Your task to perform on an android device: turn off wifi Image 0: 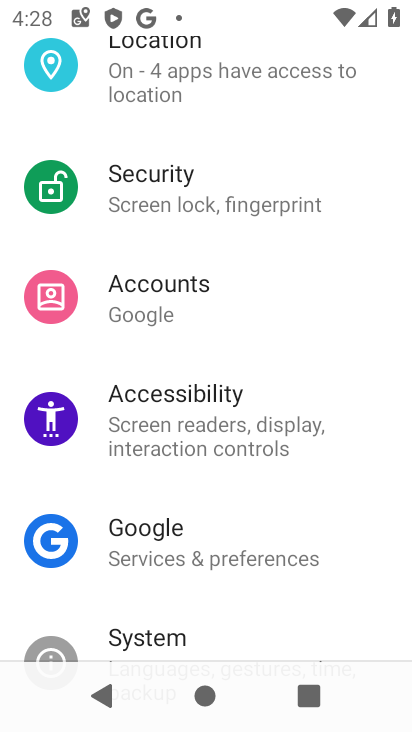
Step 0: drag from (258, 219) to (233, 707)
Your task to perform on an android device: turn off wifi Image 1: 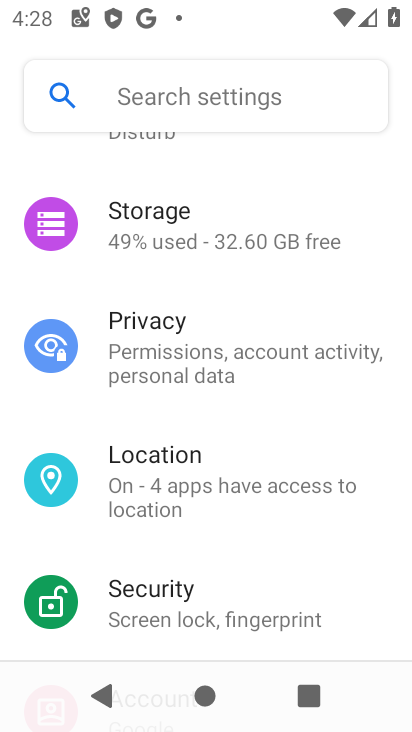
Step 1: drag from (192, 196) to (219, 550)
Your task to perform on an android device: turn off wifi Image 2: 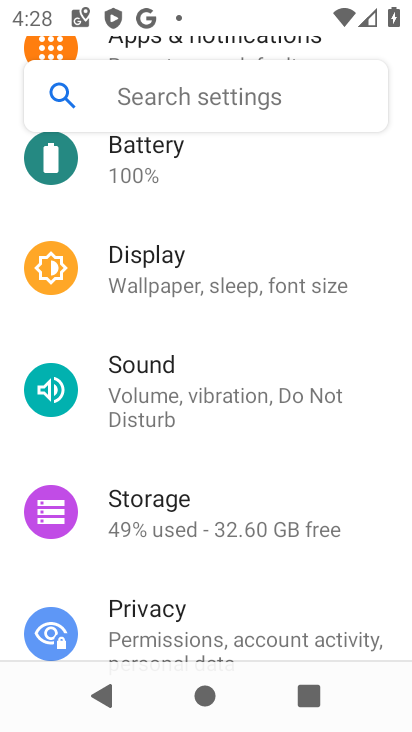
Step 2: drag from (220, 172) to (162, 519)
Your task to perform on an android device: turn off wifi Image 3: 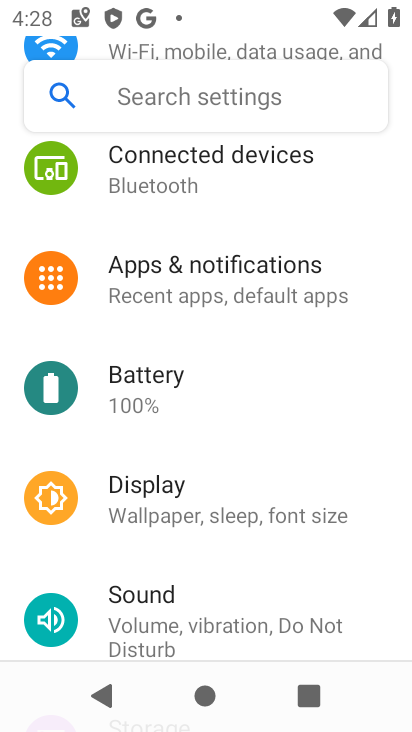
Step 3: drag from (206, 177) to (192, 585)
Your task to perform on an android device: turn off wifi Image 4: 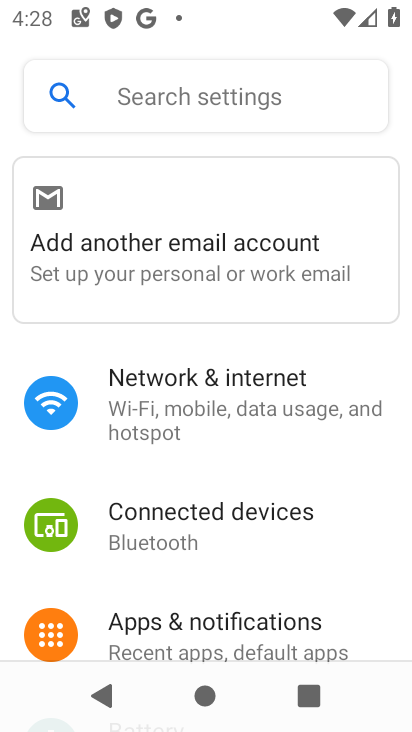
Step 4: click (213, 266)
Your task to perform on an android device: turn off wifi Image 5: 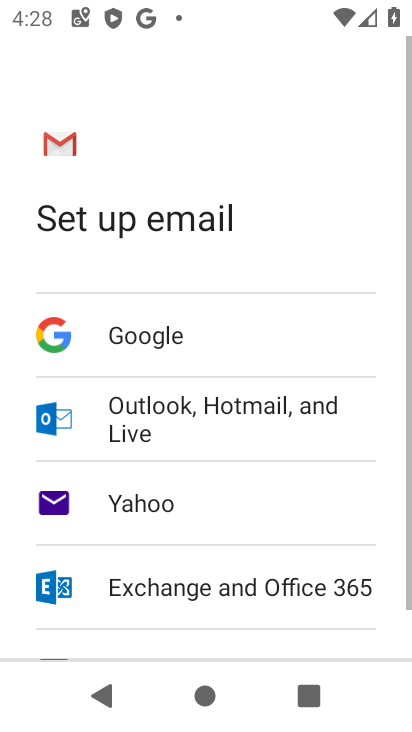
Step 5: press back button
Your task to perform on an android device: turn off wifi Image 6: 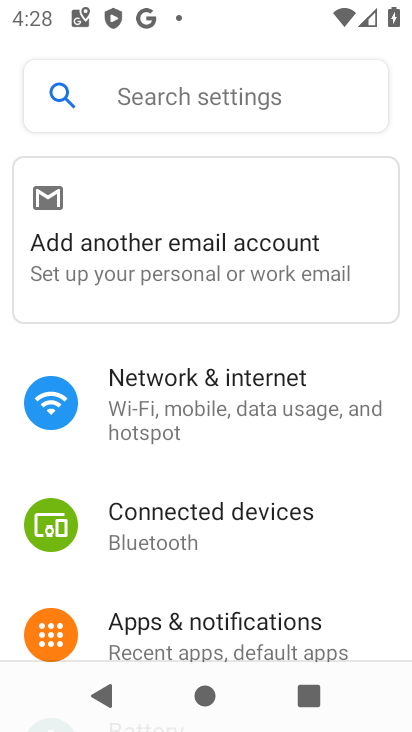
Step 6: click (198, 400)
Your task to perform on an android device: turn off wifi Image 7: 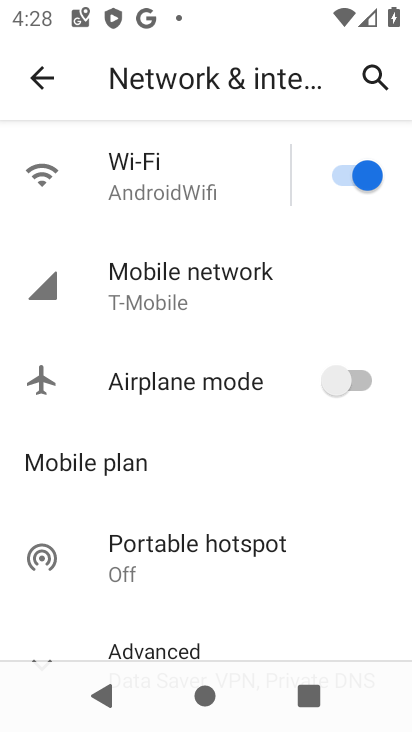
Step 7: click (175, 175)
Your task to perform on an android device: turn off wifi Image 8: 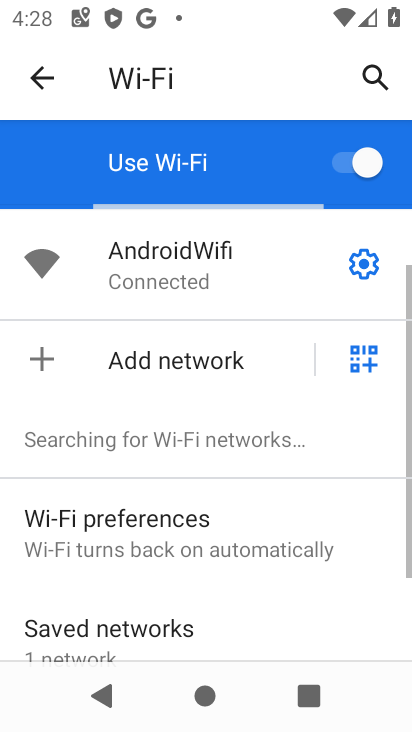
Step 8: click (348, 160)
Your task to perform on an android device: turn off wifi Image 9: 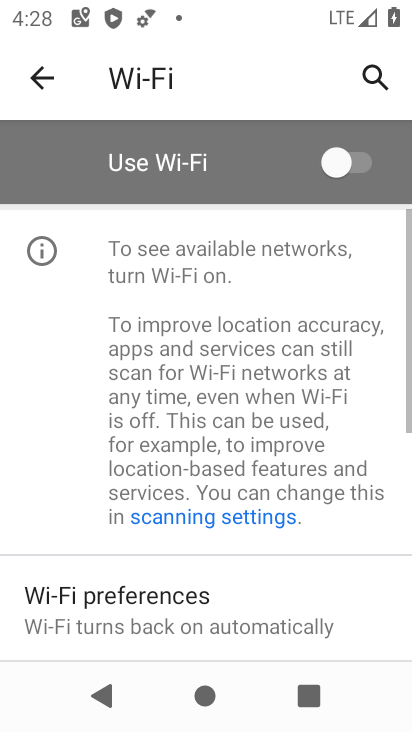
Step 9: task complete